Your task to perform on an android device: Open Chrome and go to settings Image 0: 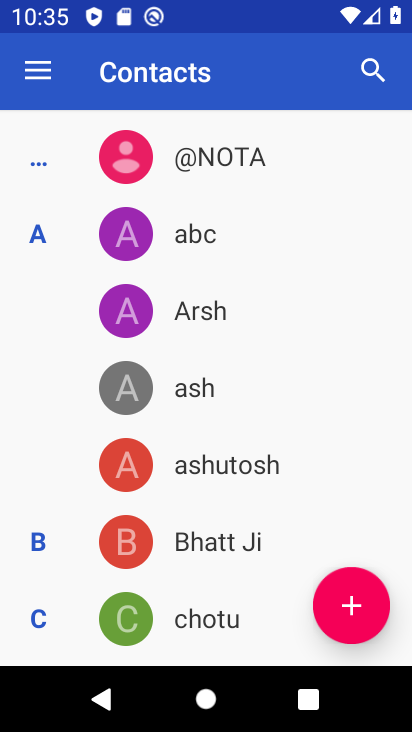
Step 0: press back button
Your task to perform on an android device: Open Chrome and go to settings Image 1: 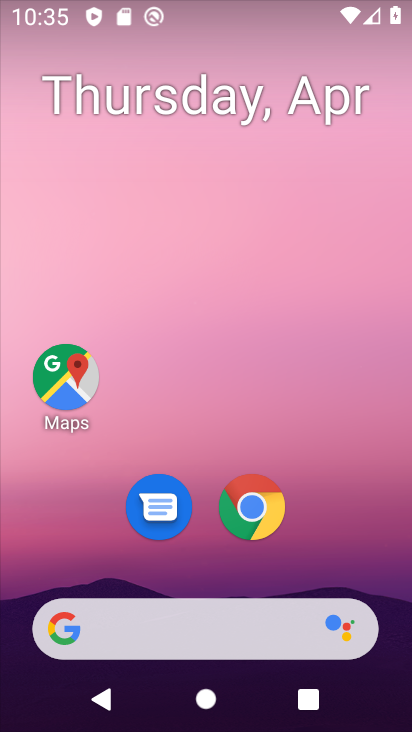
Step 1: click (258, 510)
Your task to perform on an android device: Open Chrome and go to settings Image 2: 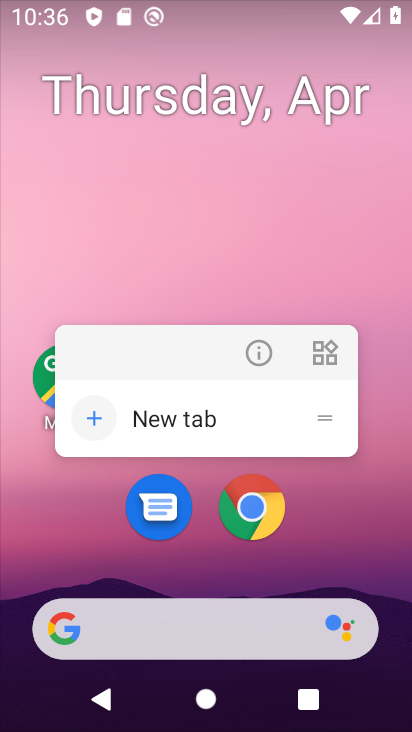
Step 2: click (265, 508)
Your task to perform on an android device: Open Chrome and go to settings Image 3: 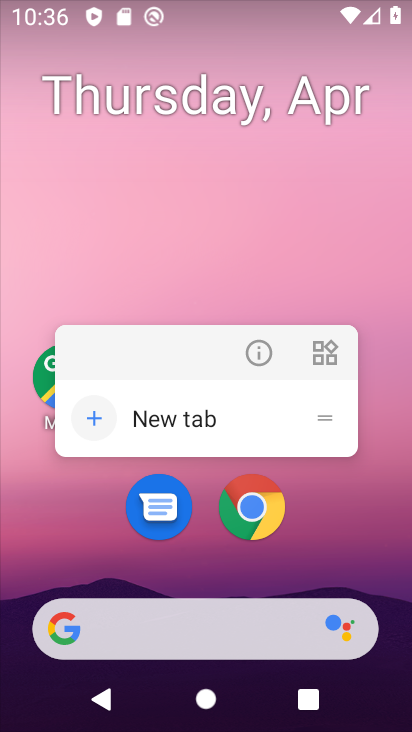
Step 3: click (269, 513)
Your task to perform on an android device: Open Chrome and go to settings Image 4: 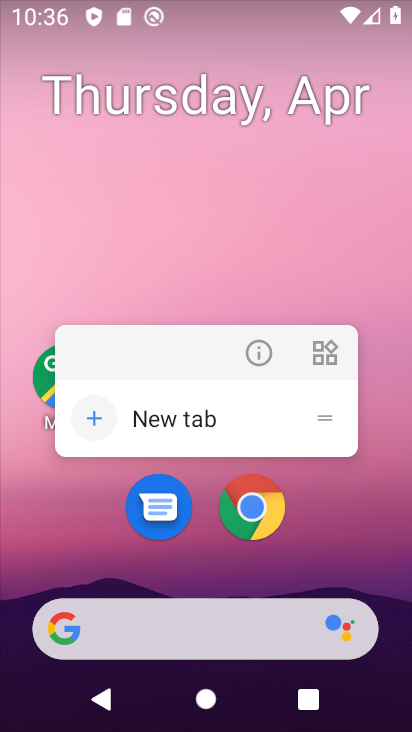
Step 4: click (268, 514)
Your task to perform on an android device: Open Chrome and go to settings Image 5: 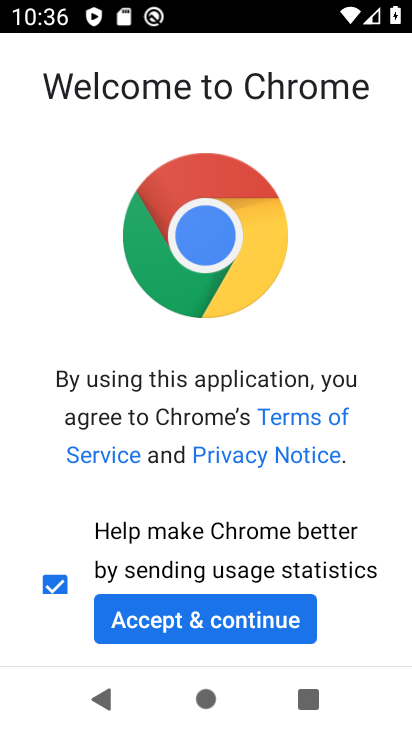
Step 5: click (250, 615)
Your task to perform on an android device: Open Chrome and go to settings Image 6: 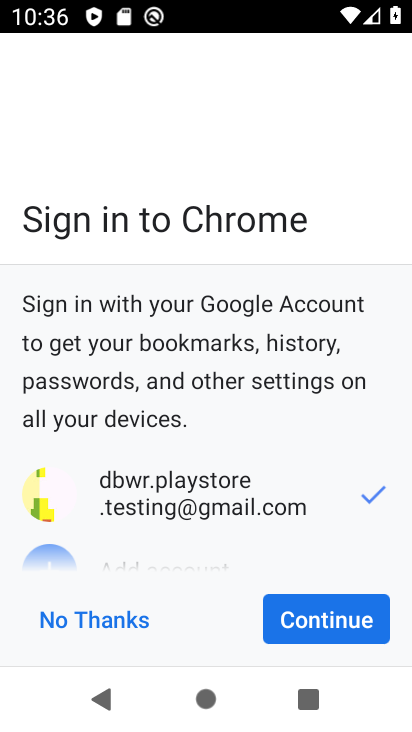
Step 6: click (250, 615)
Your task to perform on an android device: Open Chrome and go to settings Image 7: 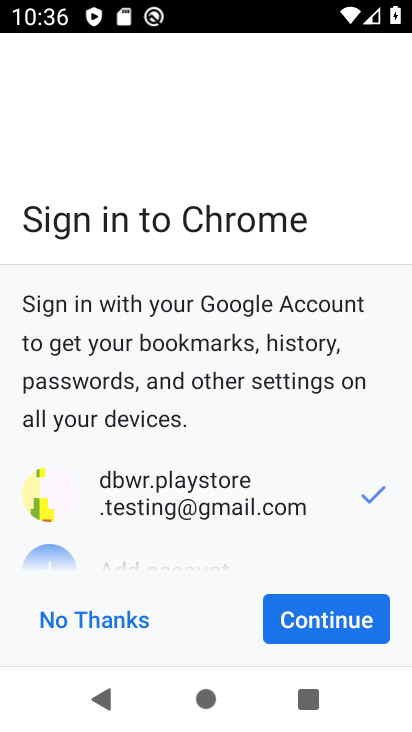
Step 7: click (364, 632)
Your task to perform on an android device: Open Chrome and go to settings Image 8: 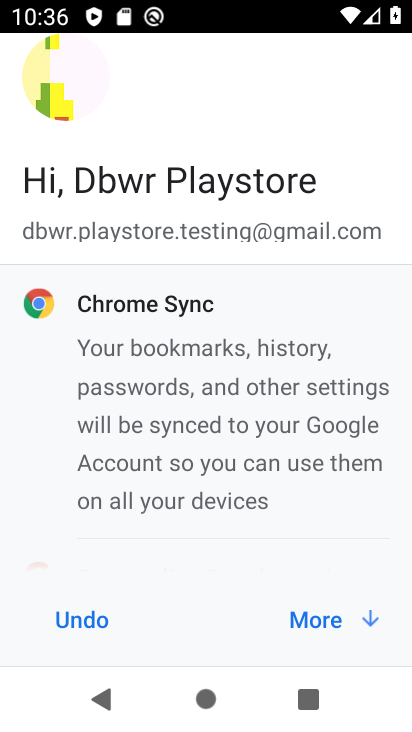
Step 8: click (318, 635)
Your task to perform on an android device: Open Chrome and go to settings Image 9: 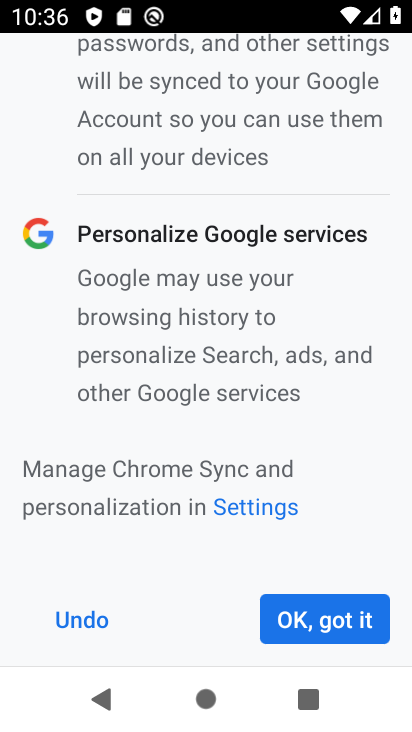
Step 9: click (326, 625)
Your task to perform on an android device: Open Chrome and go to settings Image 10: 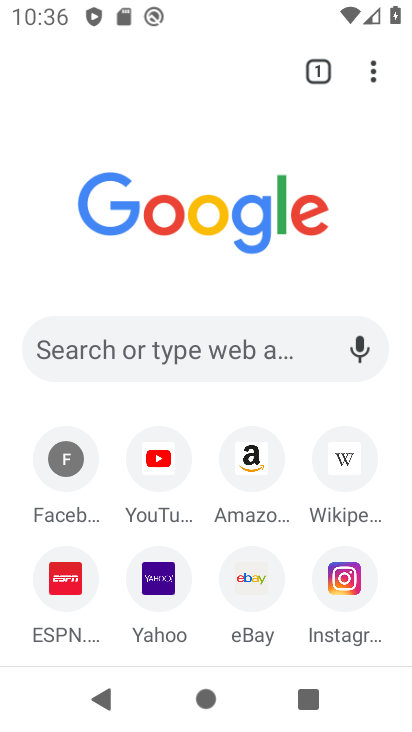
Step 10: click (380, 63)
Your task to perform on an android device: Open Chrome and go to settings Image 11: 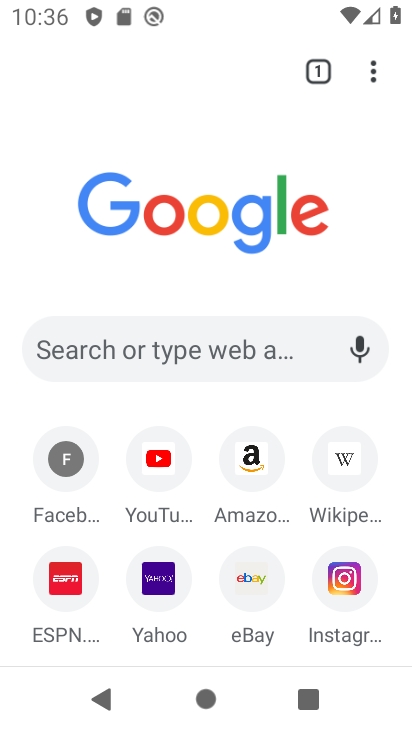
Step 11: task complete